Your task to perform on an android device: What's the weather today? Image 0: 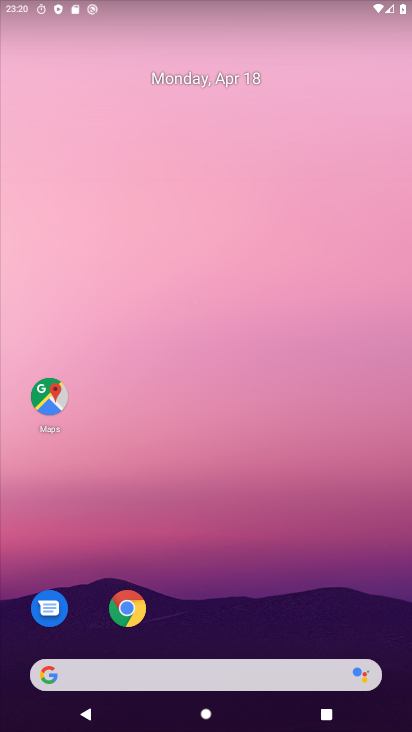
Step 0: drag from (208, 604) to (235, 200)
Your task to perform on an android device: What's the weather today? Image 1: 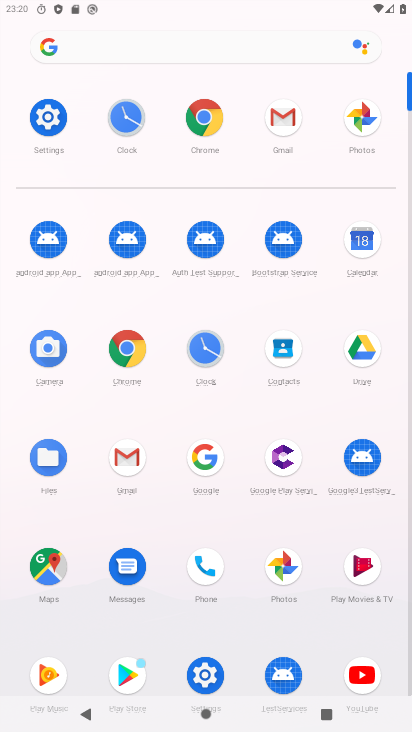
Step 1: click (203, 456)
Your task to perform on an android device: What's the weather today? Image 2: 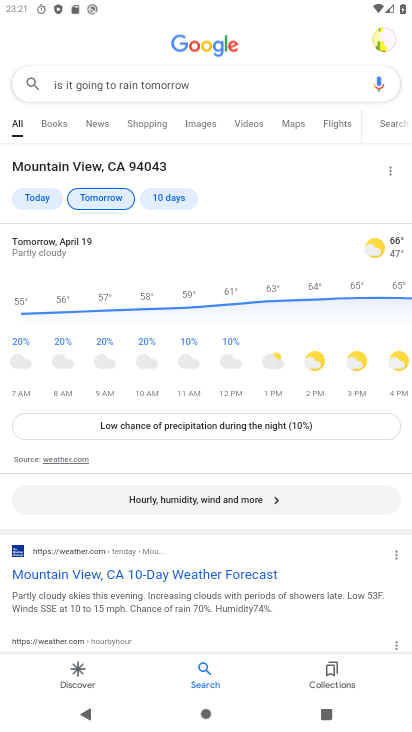
Step 2: click (254, 81)
Your task to perform on an android device: What's the weather today? Image 3: 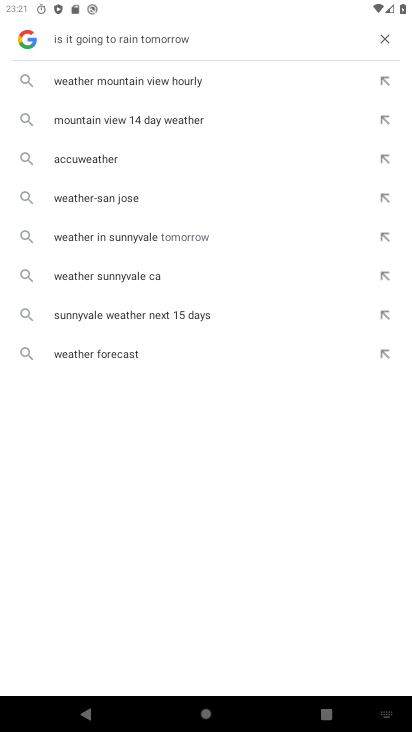
Step 3: click (382, 39)
Your task to perform on an android device: What's the weather today? Image 4: 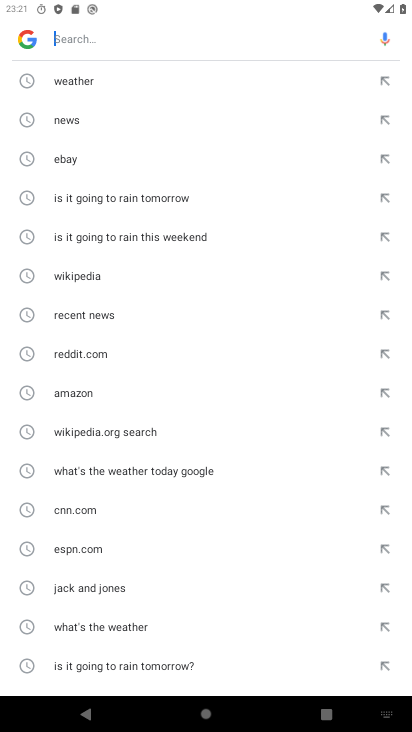
Step 4: click (92, 84)
Your task to perform on an android device: What's the weather today? Image 5: 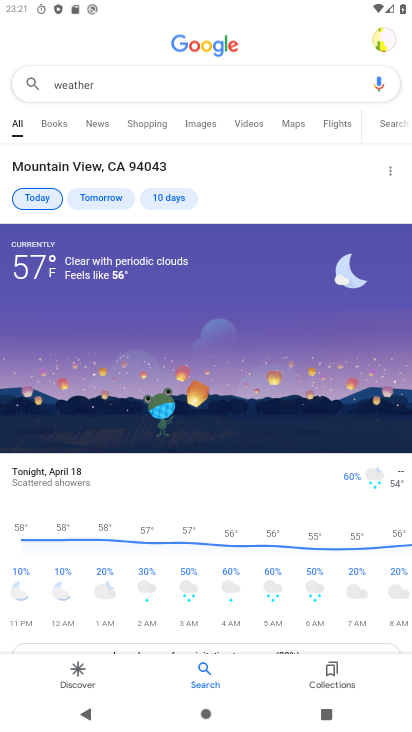
Step 5: task complete